Your task to perform on an android device: Show me popular videos on Youtube Image 0: 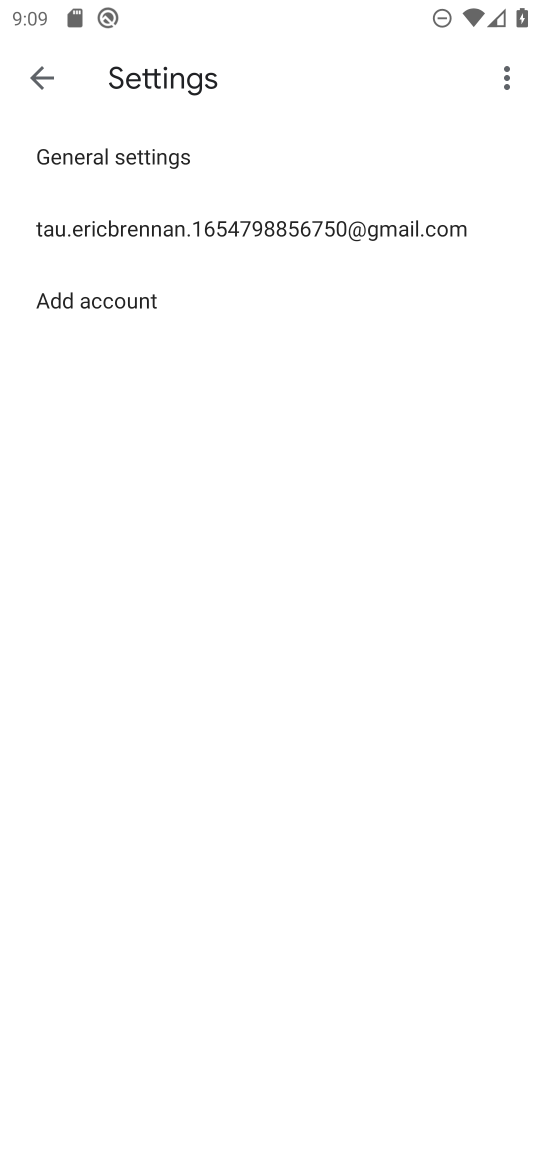
Step 0: press home button
Your task to perform on an android device: Show me popular videos on Youtube Image 1: 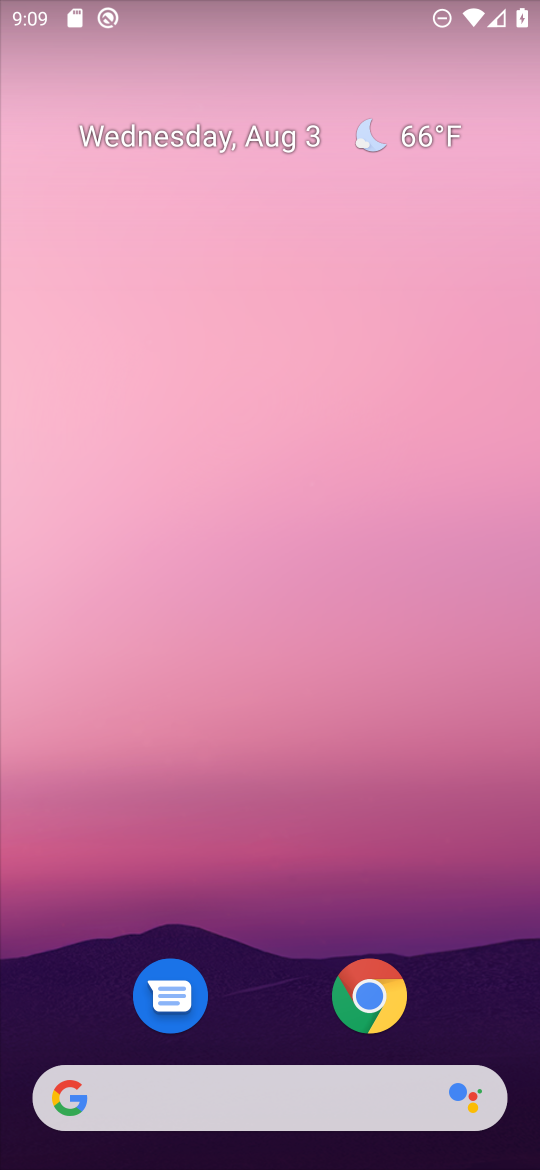
Step 1: drag from (277, 913) to (315, 44)
Your task to perform on an android device: Show me popular videos on Youtube Image 2: 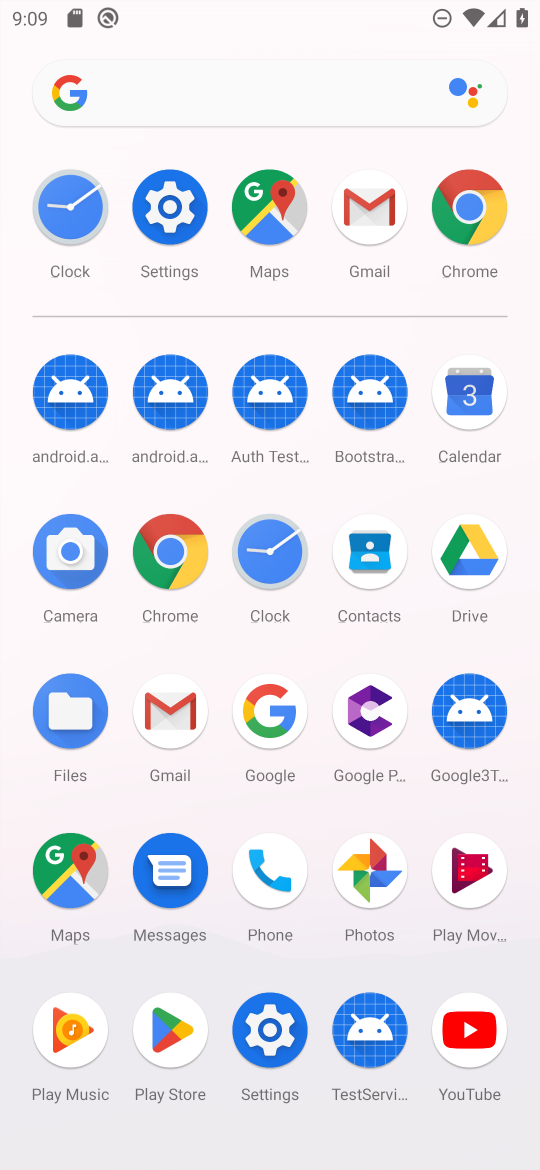
Step 2: click (474, 1029)
Your task to perform on an android device: Show me popular videos on Youtube Image 3: 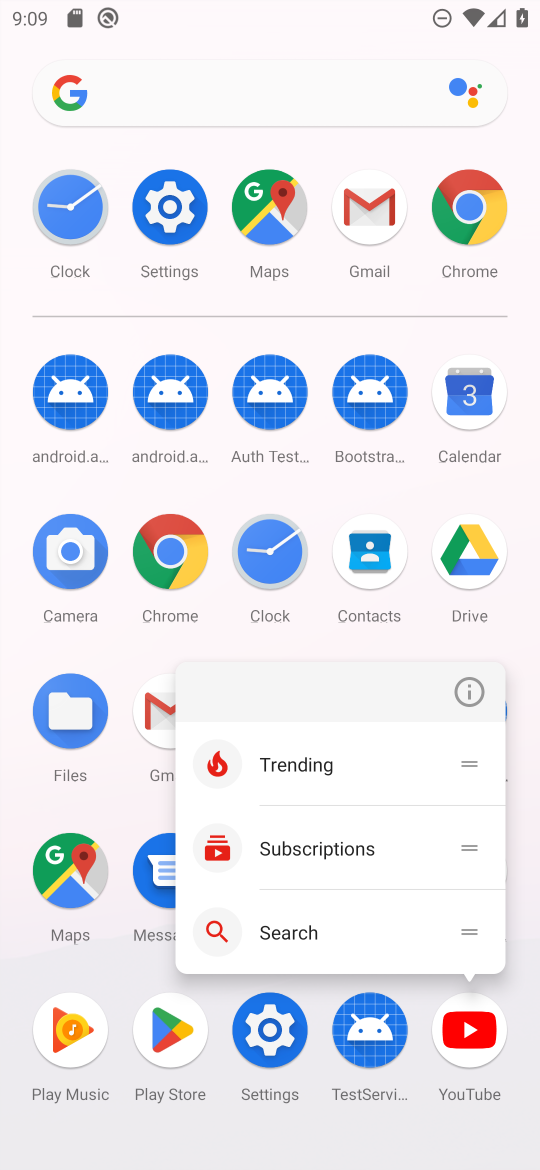
Step 3: click (479, 1029)
Your task to perform on an android device: Show me popular videos on Youtube Image 4: 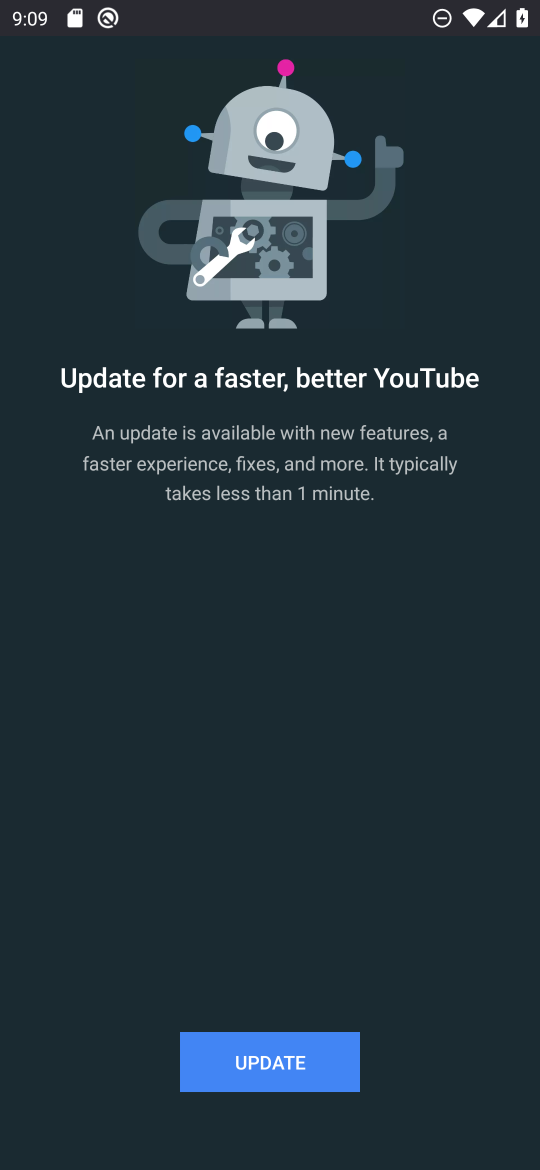
Step 4: click (304, 1069)
Your task to perform on an android device: Show me popular videos on Youtube Image 5: 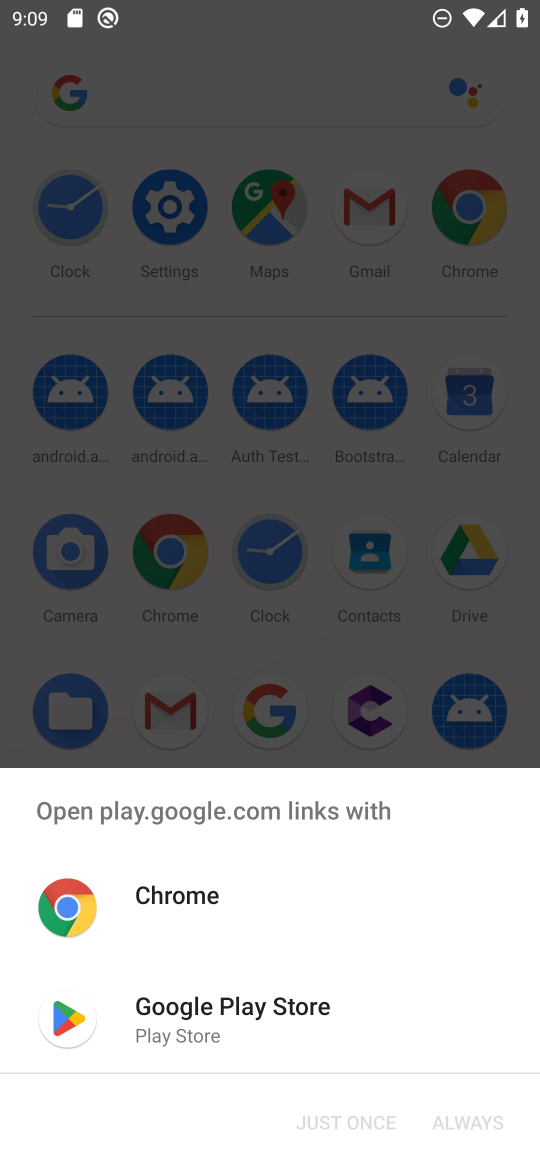
Step 5: click (254, 1022)
Your task to perform on an android device: Show me popular videos on Youtube Image 6: 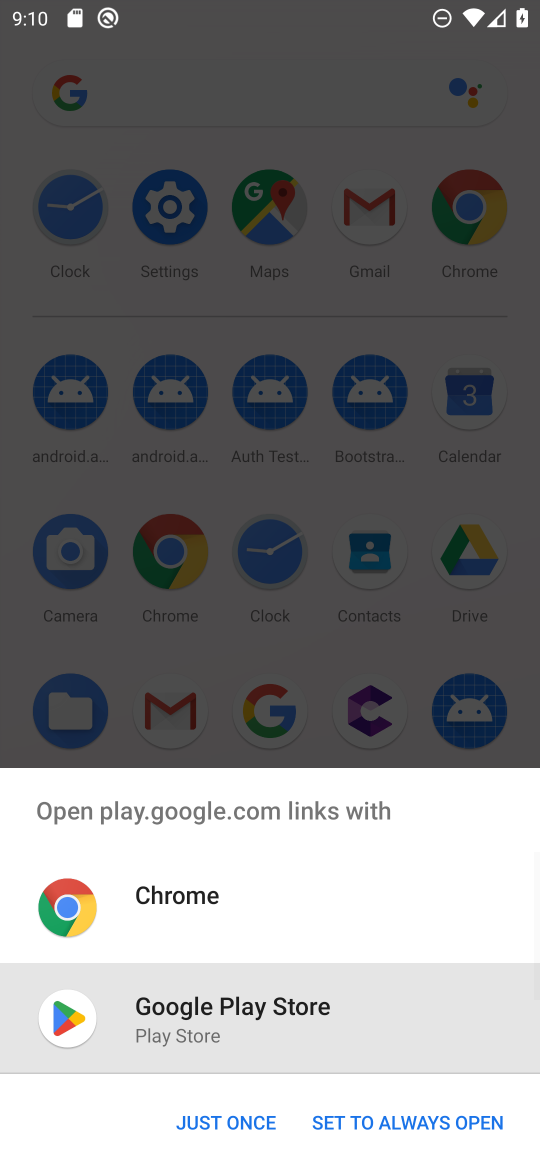
Step 6: click (251, 1118)
Your task to perform on an android device: Show me popular videos on Youtube Image 7: 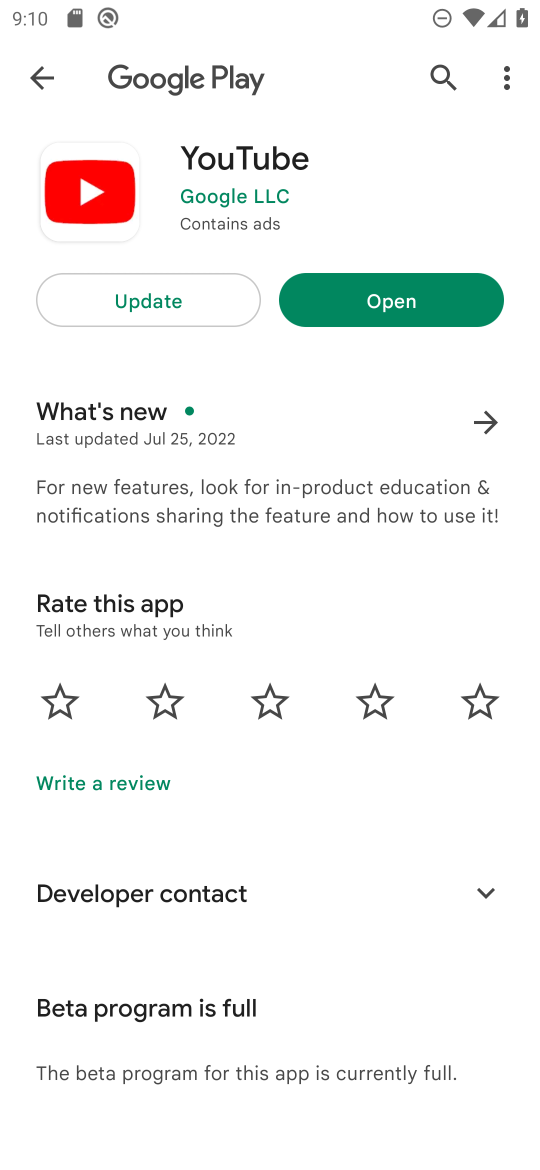
Step 7: click (160, 303)
Your task to perform on an android device: Show me popular videos on Youtube Image 8: 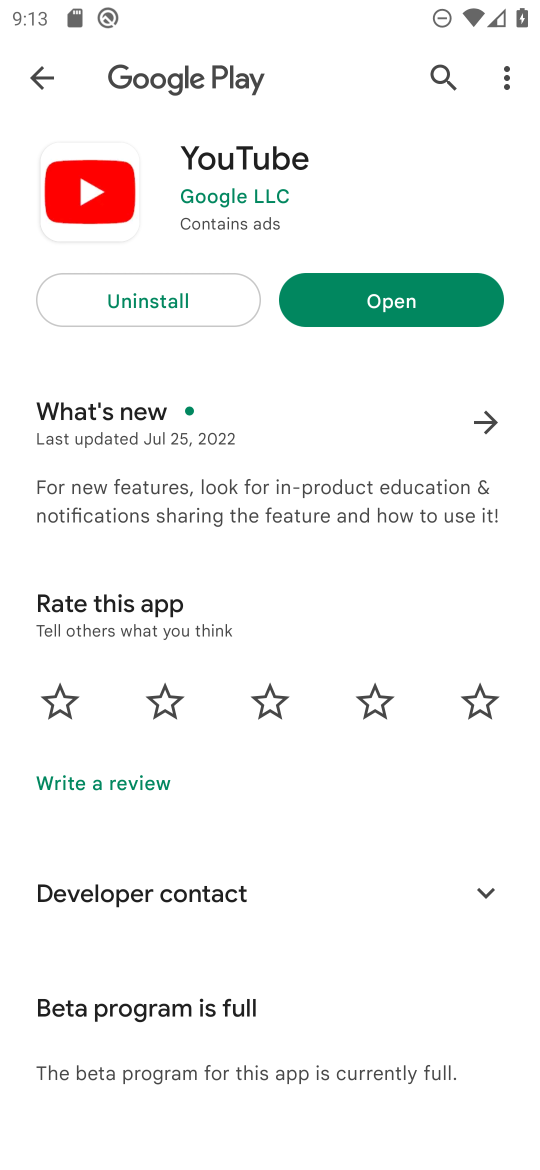
Step 8: click (440, 290)
Your task to perform on an android device: Show me popular videos on Youtube Image 9: 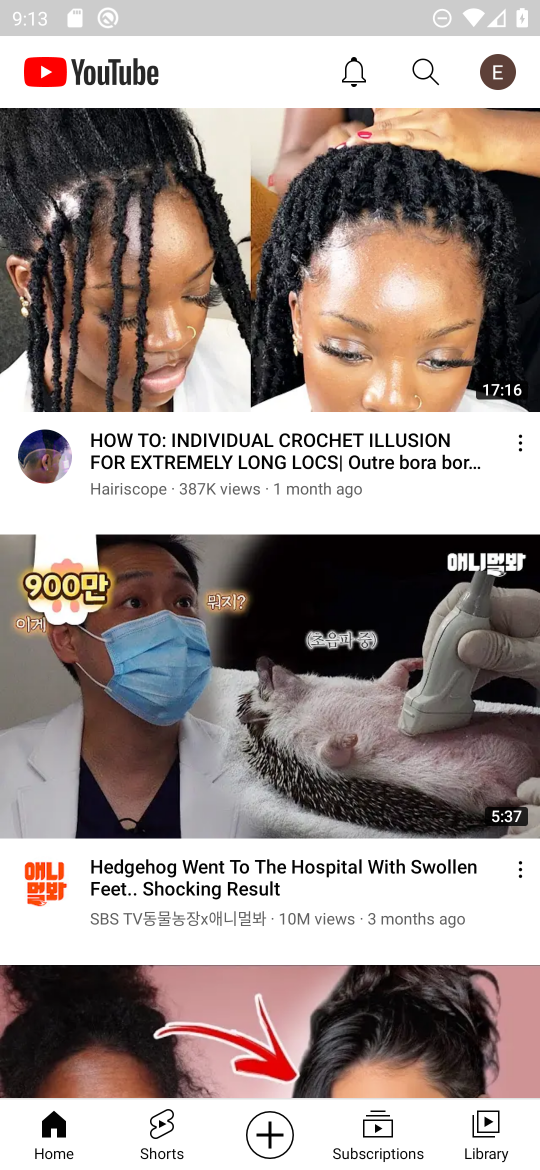
Step 9: click (426, 66)
Your task to perform on an android device: Show me popular videos on Youtube Image 10: 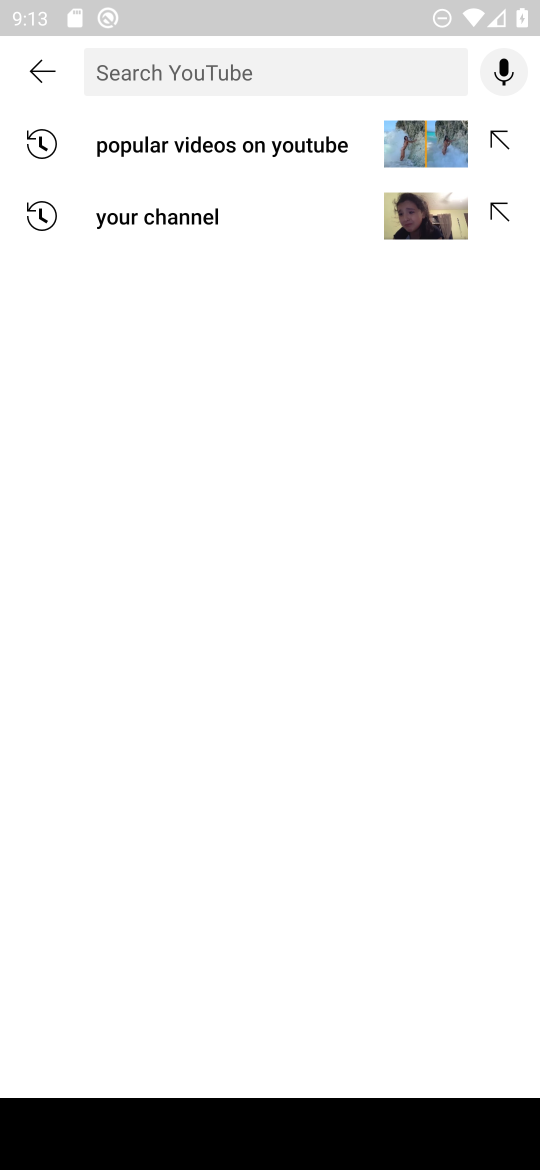
Step 10: click (254, 138)
Your task to perform on an android device: Show me popular videos on Youtube Image 11: 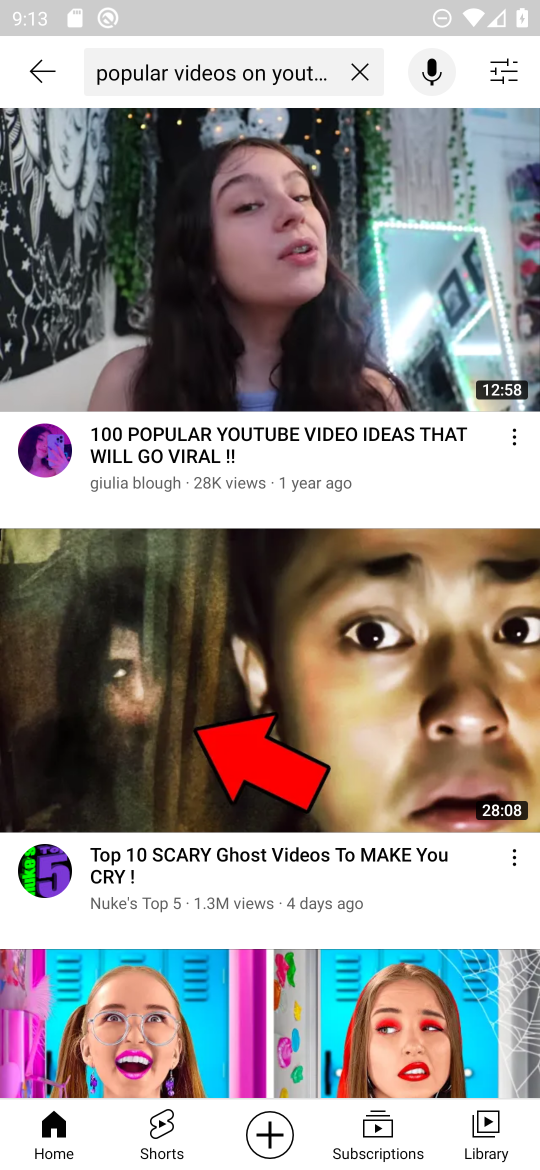
Step 11: task complete